Your task to perform on an android device: Open calendar and show me the first week of next month Image 0: 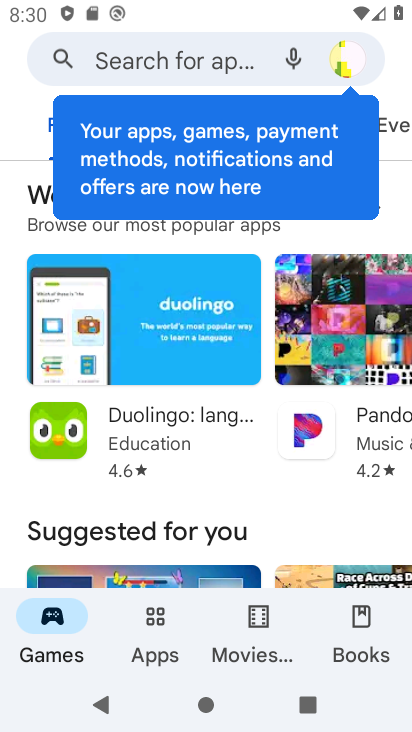
Step 0: press home button
Your task to perform on an android device: Open calendar and show me the first week of next month Image 1: 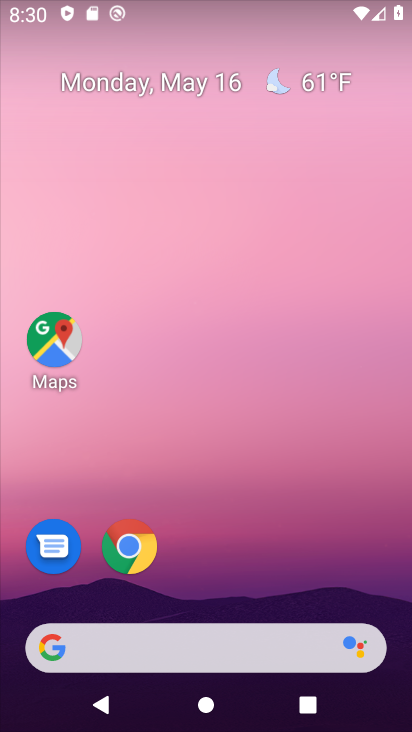
Step 1: drag from (252, 565) to (174, 223)
Your task to perform on an android device: Open calendar and show me the first week of next month Image 2: 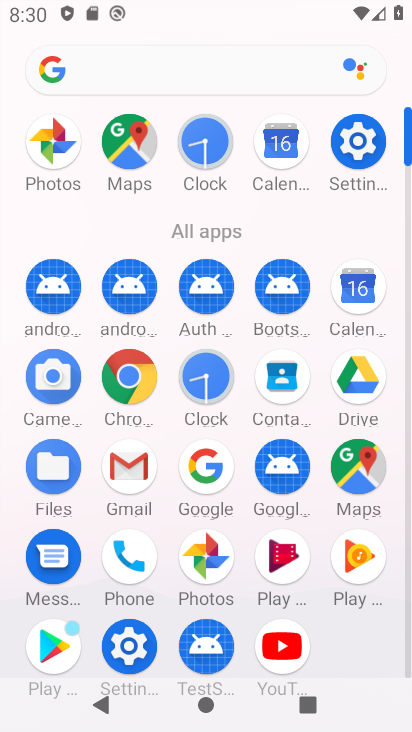
Step 2: click (366, 303)
Your task to perform on an android device: Open calendar and show me the first week of next month Image 3: 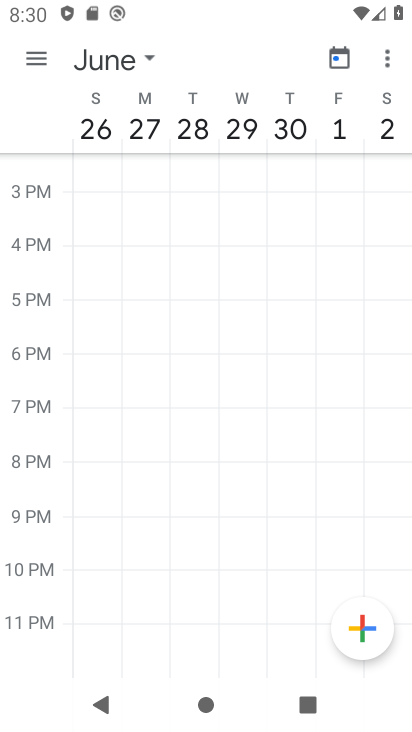
Step 3: click (117, 69)
Your task to perform on an android device: Open calendar and show me the first week of next month Image 4: 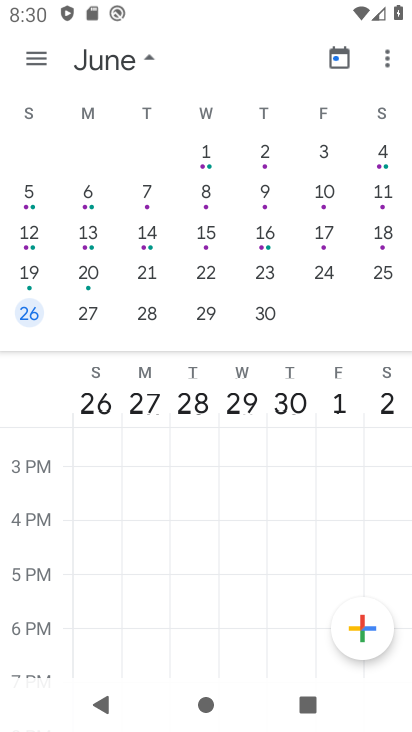
Step 4: click (92, 192)
Your task to perform on an android device: Open calendar and show me the first week of next month Image 5: 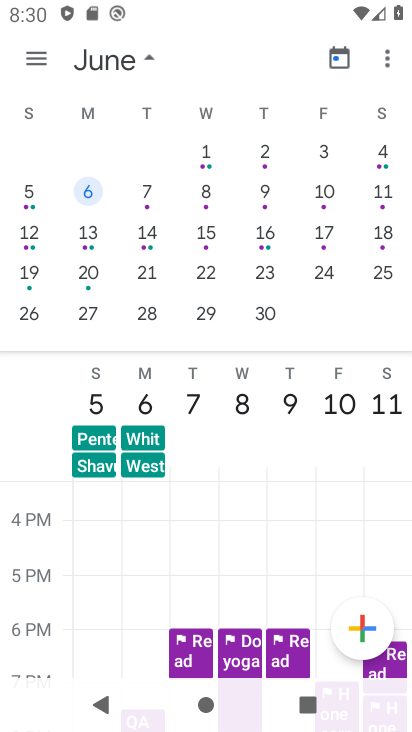
Step 5: task complete